Your task to perform on an android device: turn off data saver in the chrome app Image 0: 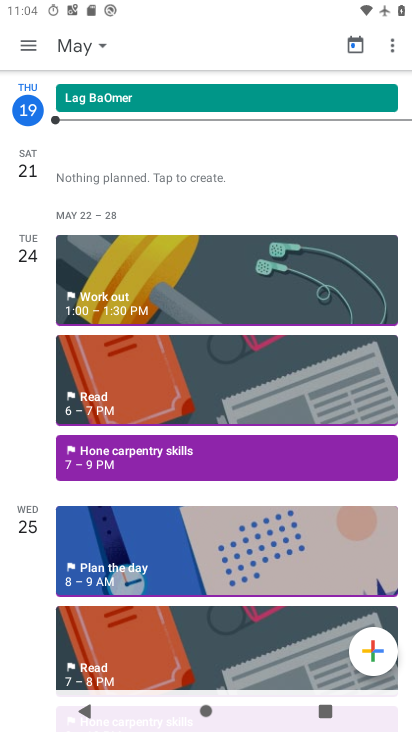
Step 0: press home button
Your task to perform on an android device: turn off data saver in the chrome app Image 1: 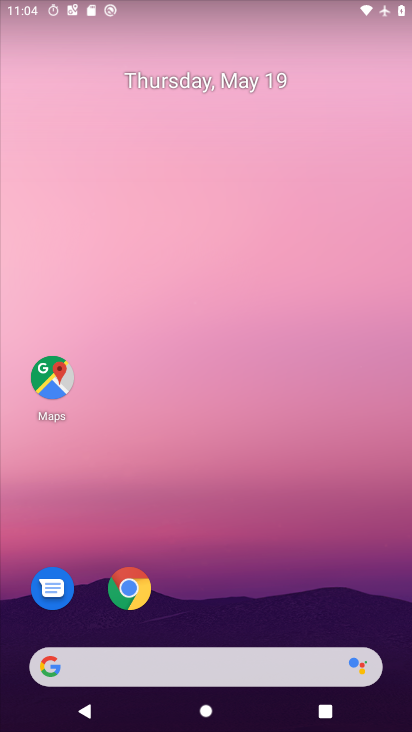
Step 1: click (127, 595)
Your task to perform on an android device: turn off data saver in the chrome app Image 2: 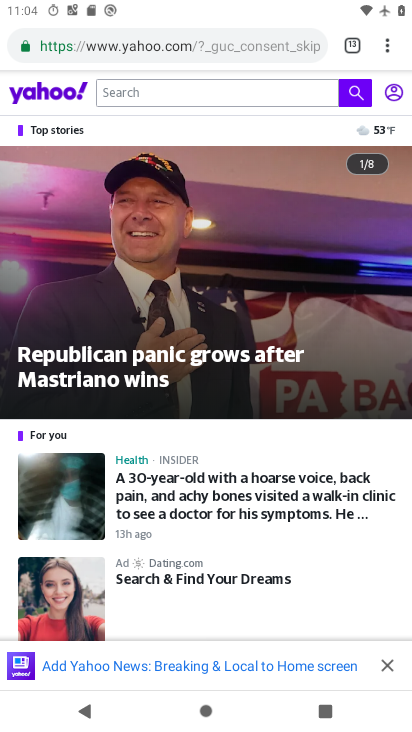
Step 2: drag from (390, 44) to (300, 565)
Your task to perform on an android device: turn off data saver in the chrome app Image 3: 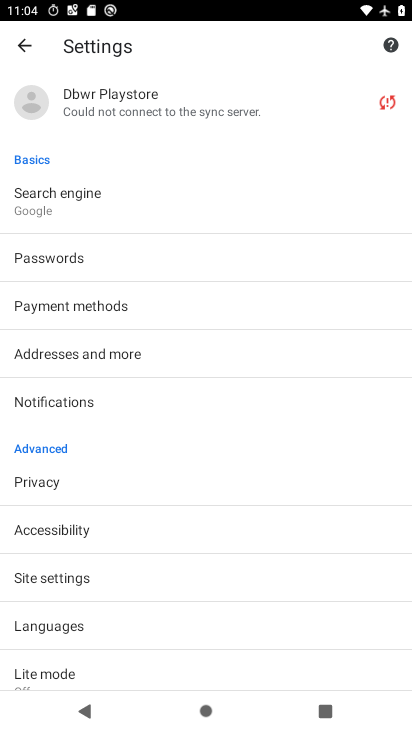
Step 3: drag from (174, 648) to (304, 205)
Your task to perform on an android device: turn off data saver in the chrome app Image 4: 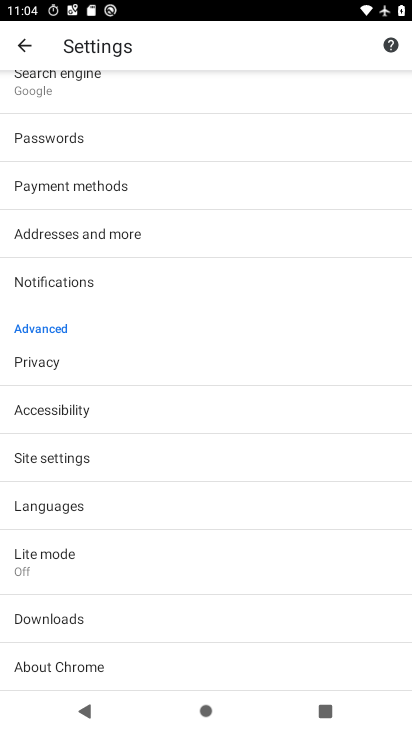
Step 4: click (49, 588)
Your task to perform on an android device: turn off data saver in the chrome app Image 5: 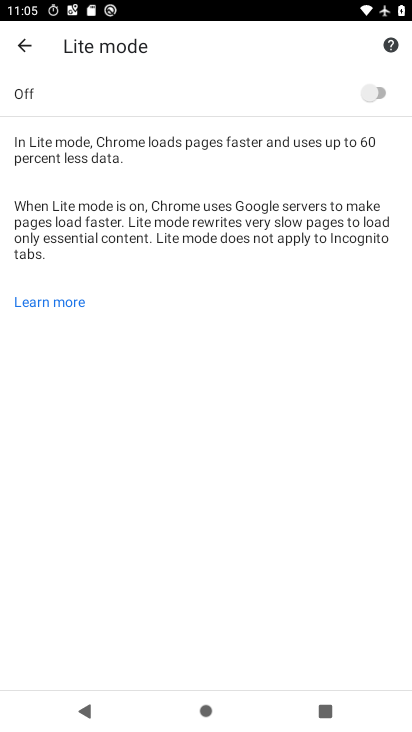
Step 5: task complete